Your task to perform on an android device: Open Google Chrome and open the bookmarks view Image 0: 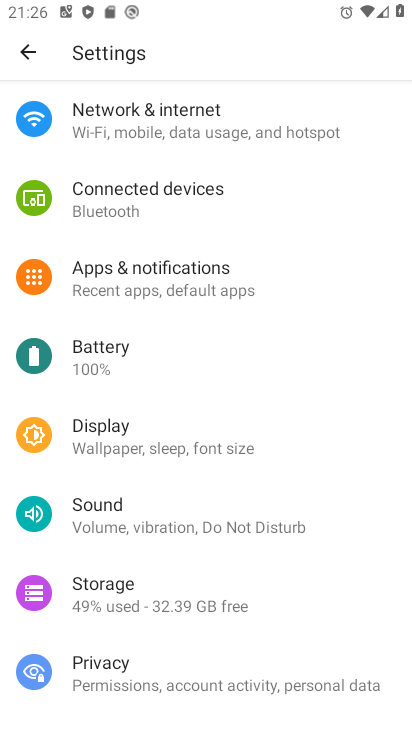
Step 0: press home button
Your task to perform on an android device: Open Google Chrome and open the bookmarks view Image 1: 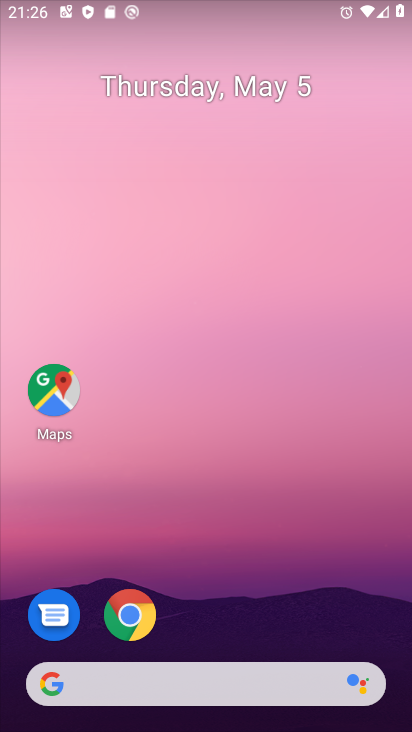
Step 1: drag from (226, 637) to (268, 215)
Your task to perform on an android device: Open Google Chrome and open the bookmarks view Image 2: 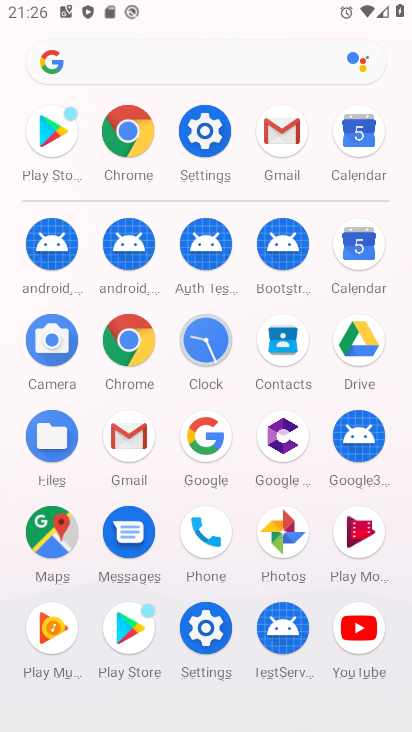
Step 2: click (130, 350)
Your task to perform on an android device: Open Google Chrome and open the bookmarks view Image 3: 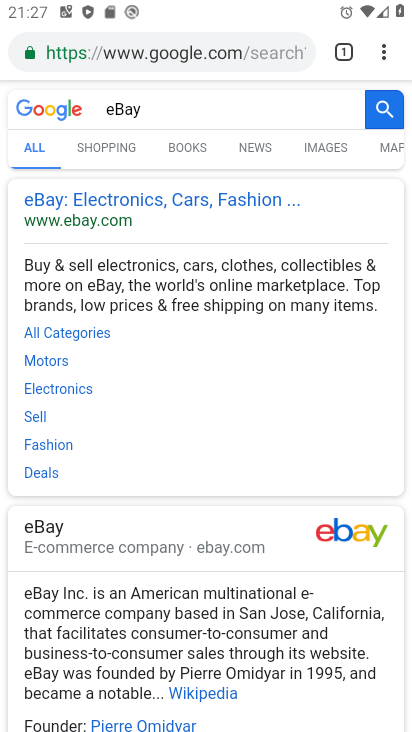
Step 3: click (389, 62)
Your task to perform on an android device: Open Google Chrome and open the bookmarks view Image 4: 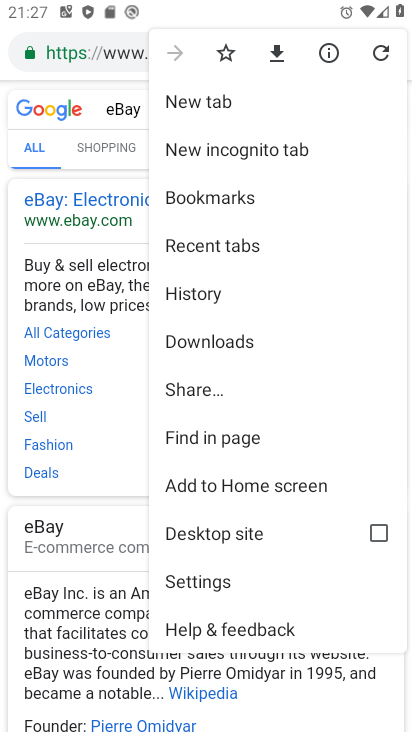
Step 4: click (243, 204)
Your task to perform on an android device: Open Google Chrome and open the bookmarks view Image 5: 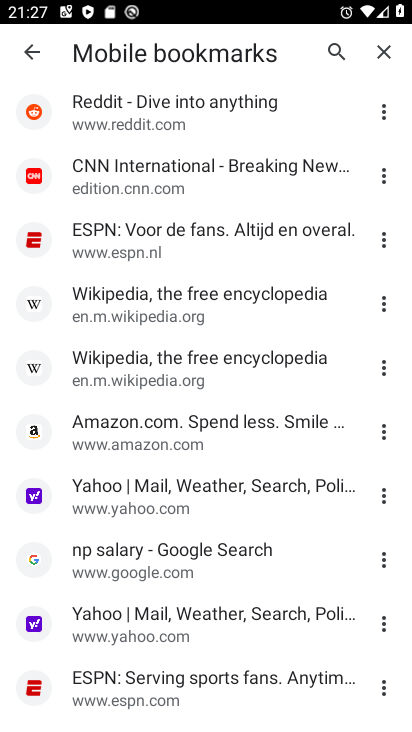
Step 5: task complete